Your task to perform on an android device: search for starred emails in the gmail app Image 0: 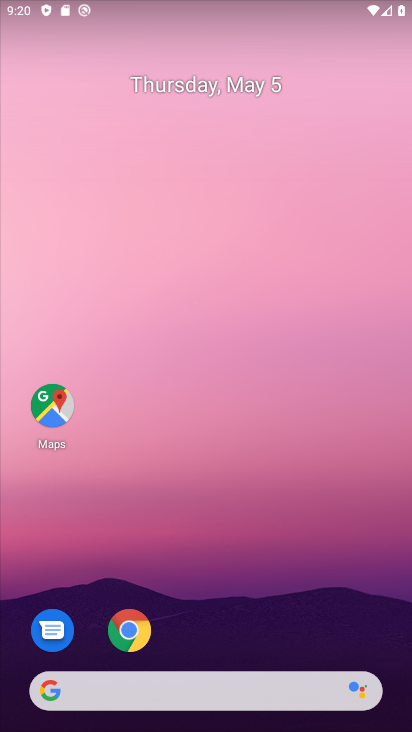
Step 0: drag from (186, 636) to (215, 43)
Your task to perform on an android device: search for starred emails in the gmail app Image 1: 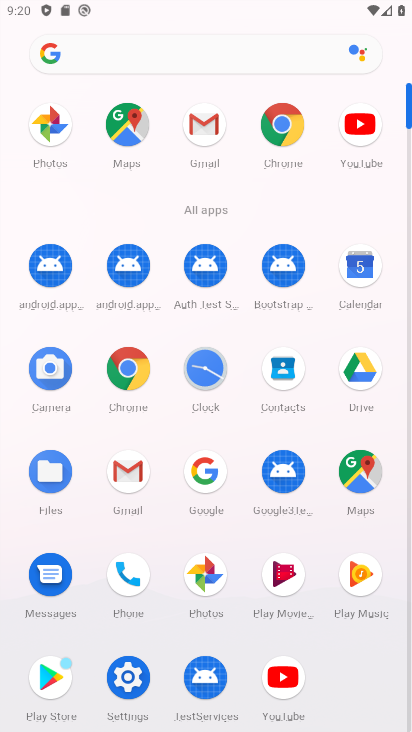
Step 1: click (206, 131)
Your task to perform on an android device: search for starred emails in the gmail app Image 2: 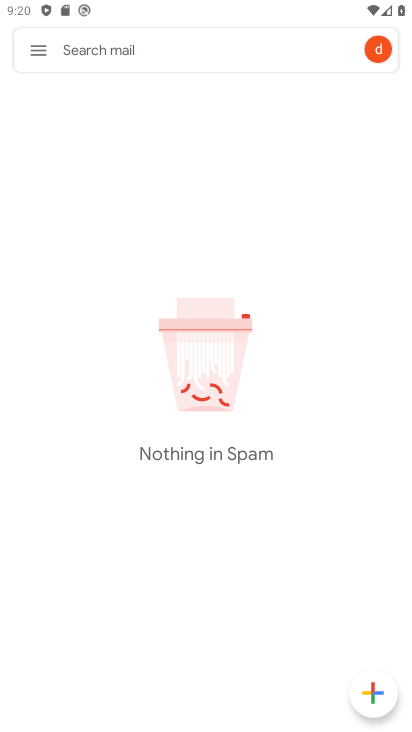
Step 2: click (30, 50)
Your task to perform on an android device: search for starred emails in the gmail app Image 3: 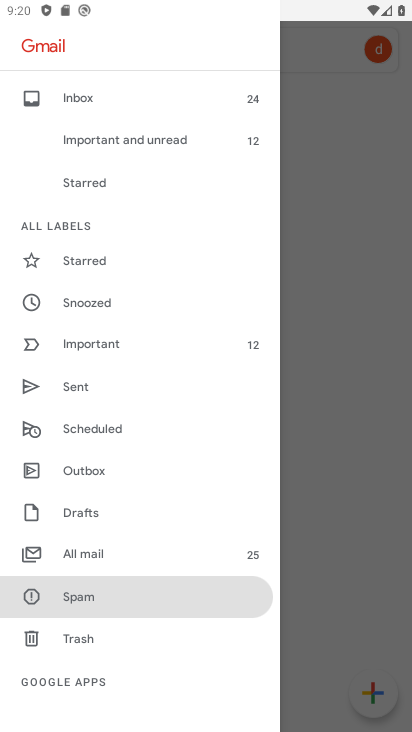
Step 3: click (77, 180)
Your task to perform on an android device: search for starred emails in the gmail app Image 4: 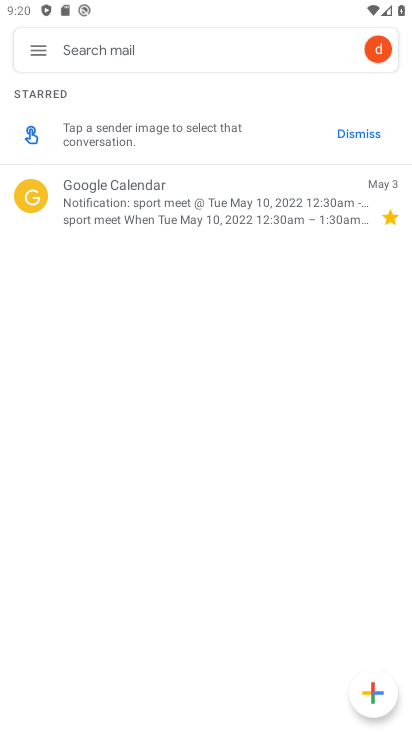
Step 4: task complete